Your task to perform on an android device: turn off wifi Image 0: 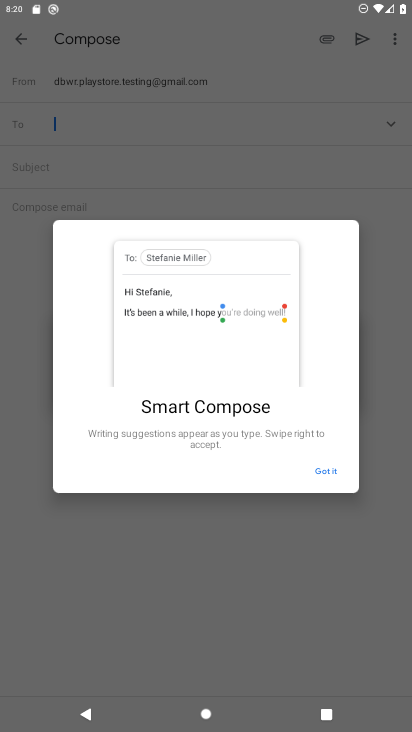
Step 0: press home button
Your task to perform on an android device: turn off wifi Image 1: 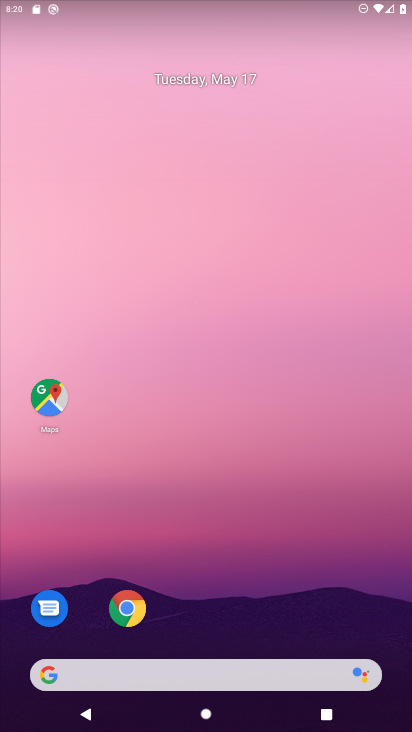
Step 1: drag from (225, 647) to (342, 131)
Your task to perform on an android device: turn off wifi Image 2: 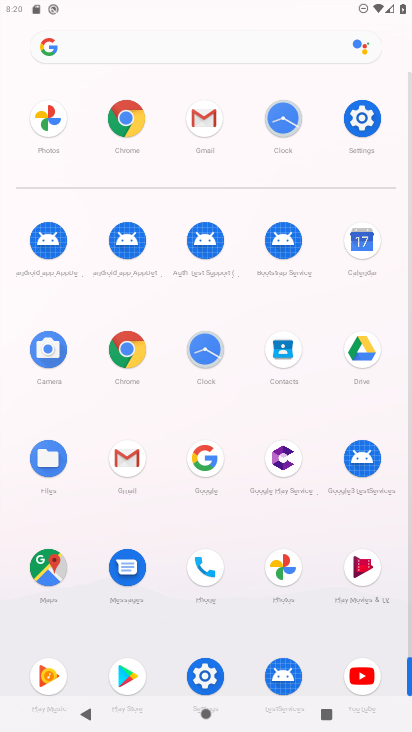
Step 2: click (365, 125)
Your task to perform on an android device: turn off wifi Image 3: 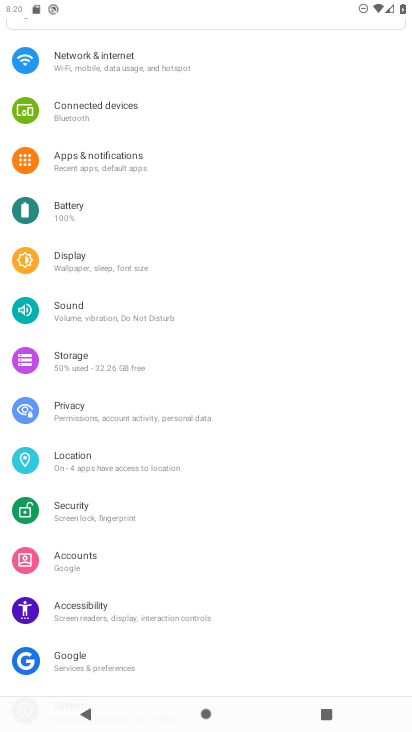
Step 3: click (149, 69)
Your task to perform on an android device: turn off wifi Image 4: 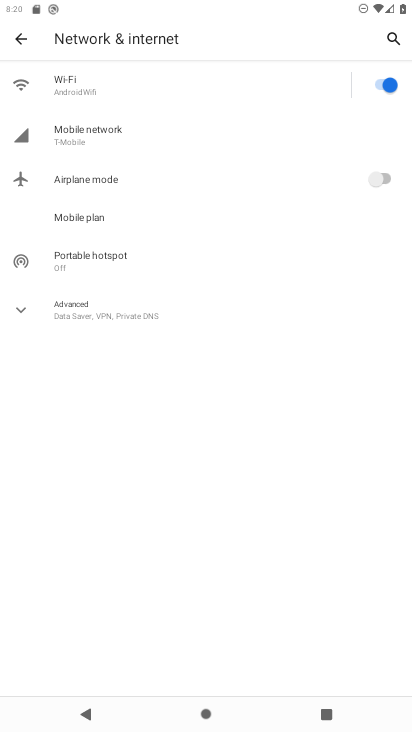
Step 4: click (376, 77)
Your task to perform on an android device: turn off wifi Image 5: 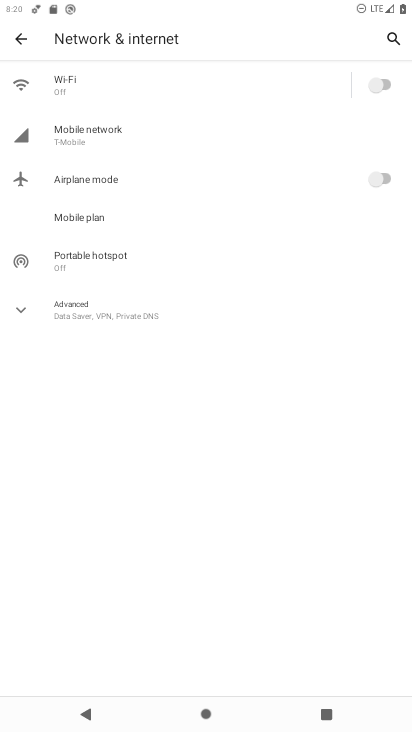
Step 5: task complete